Your task to perform on an android device: manage bookmarks in the chrome app Image 0: 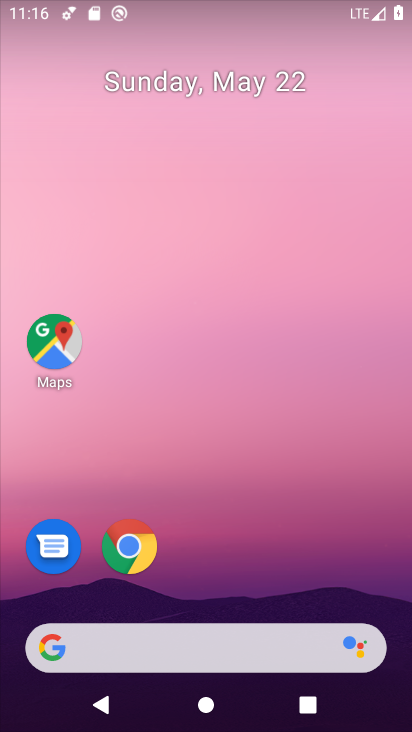
Step 0: drag from (287, 619) to (365, 24)
Your task to perform on an android device: manage bookmarks in the chrome app Image 1: 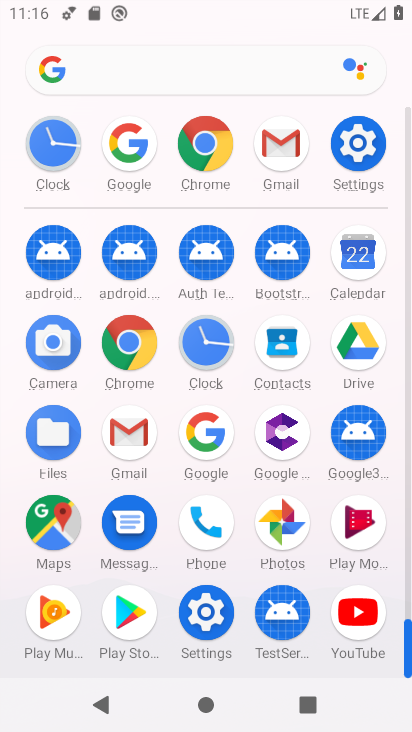
Step 1: click (201, 176)
Your task to perform on an android device: manage bookmarks in the chrome app Image 2: 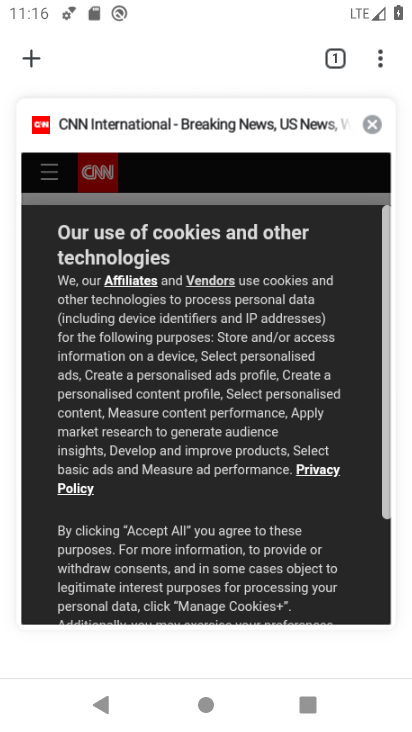
Step 2: click (201, 176)
Your task to perform on an android device: manage bookmarks in the chrome app Image 3: 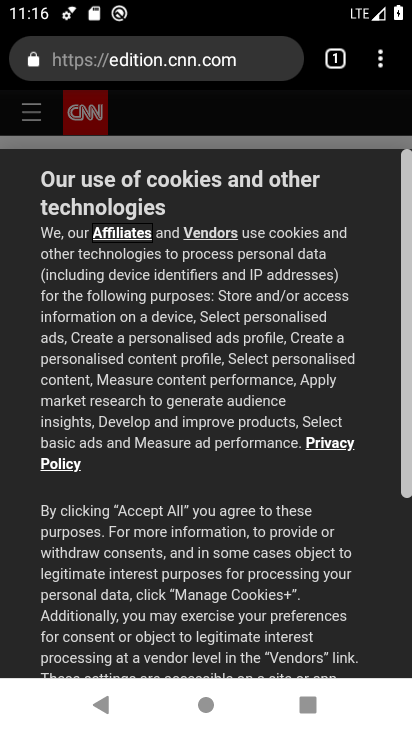
Step 3: click (383, 62)
Your task to perform on an android device: manage bookmarks in the chrome app Image 4: 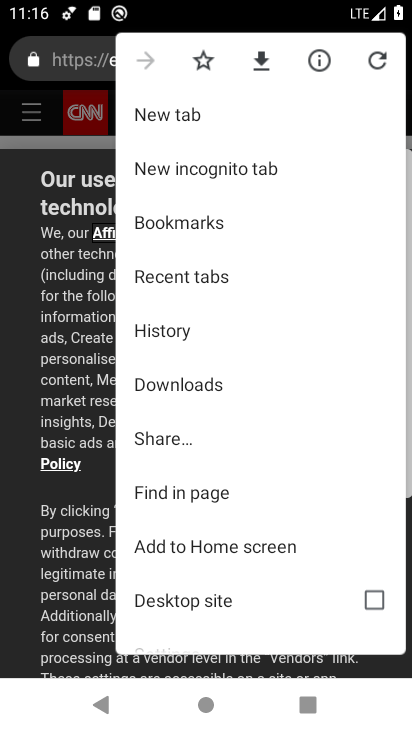
Step 4: click (240, 224)
Your task to perform on an android device: manage bookmarks in the chrome app Image 5: 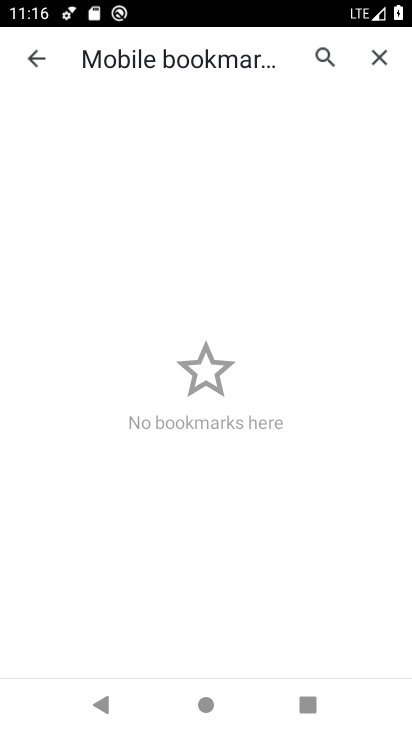
Step 5: task complete